Your task to perform on an android device: check out phone information Image 0: 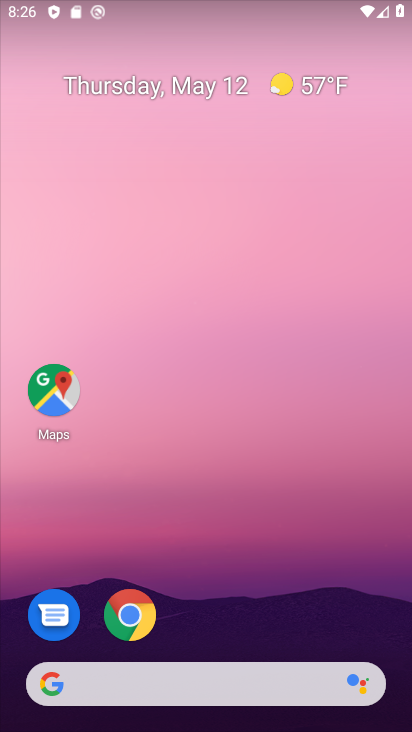
Step 0: drag from (241, 496) to (255, 80)
Your task to perform on an android device: check out phone information Image 1: 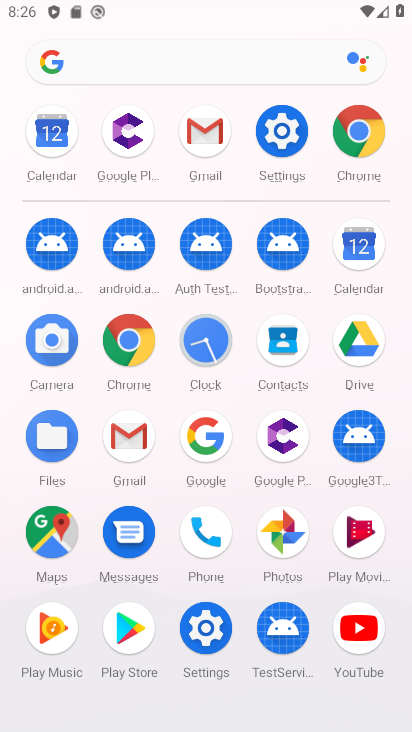
Step 1: drag from (7, 532) to (15, 238)
Your task to perform on an android device: check out phone information Image 2: 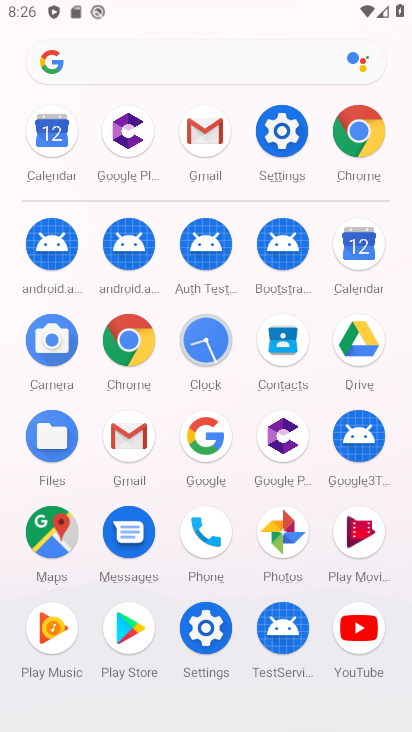
Step 2: click (198, 624)
Your task to perform on an android device: check out phone information Image 3: 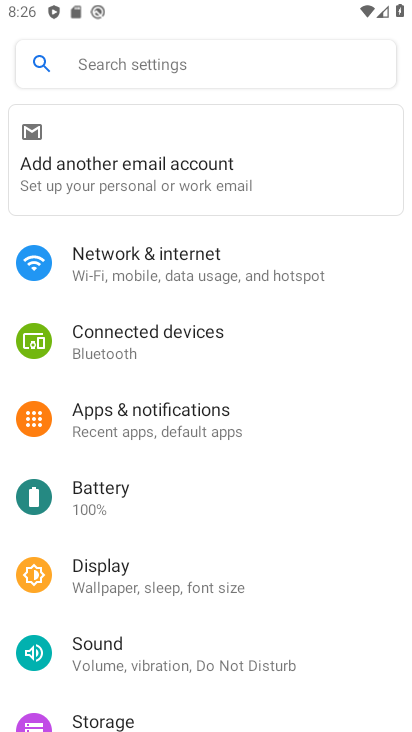
Step 3: drag from (254, 614) to (275, 185)
Your task to perform on an android device: check out phone information Image 4: 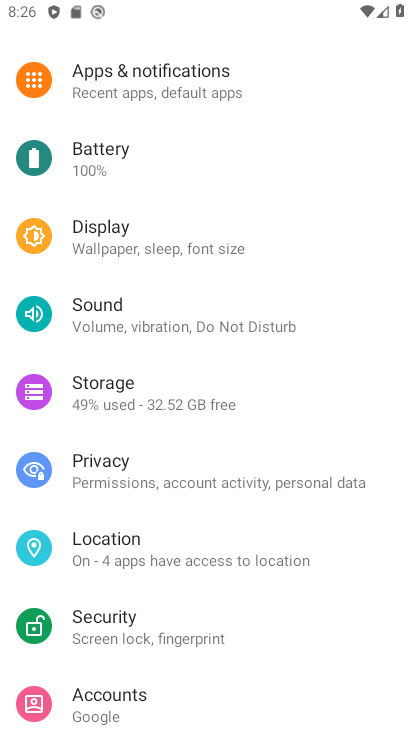
Step 4: drag from (201, 552) to (219, 187)
Your task to perform on an android device: check out phone information Image 5: 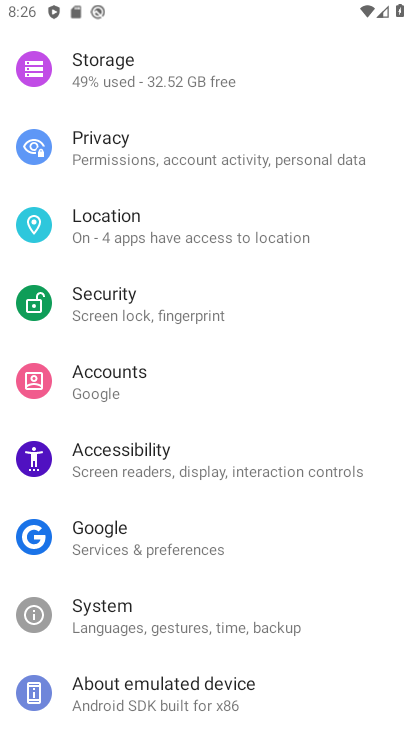
Step 5: drag from (207, 524) to (234, 209)
Your task to perform on an android device: check out phone information Image 6: 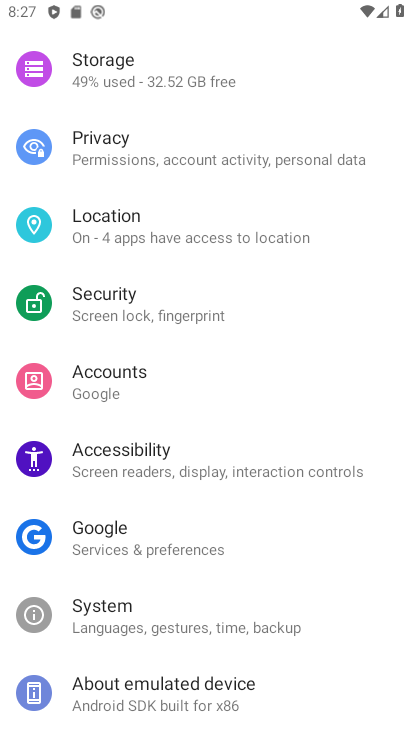
Step 6: click (195, 686)
Your task to perform on an android device: check out phone information Image 7: 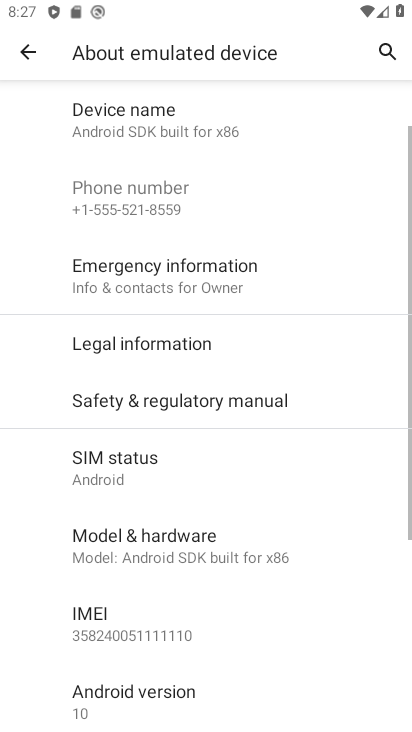
Step 7: task complete